Your task to perform on an android device: toggle wifi Image 0: 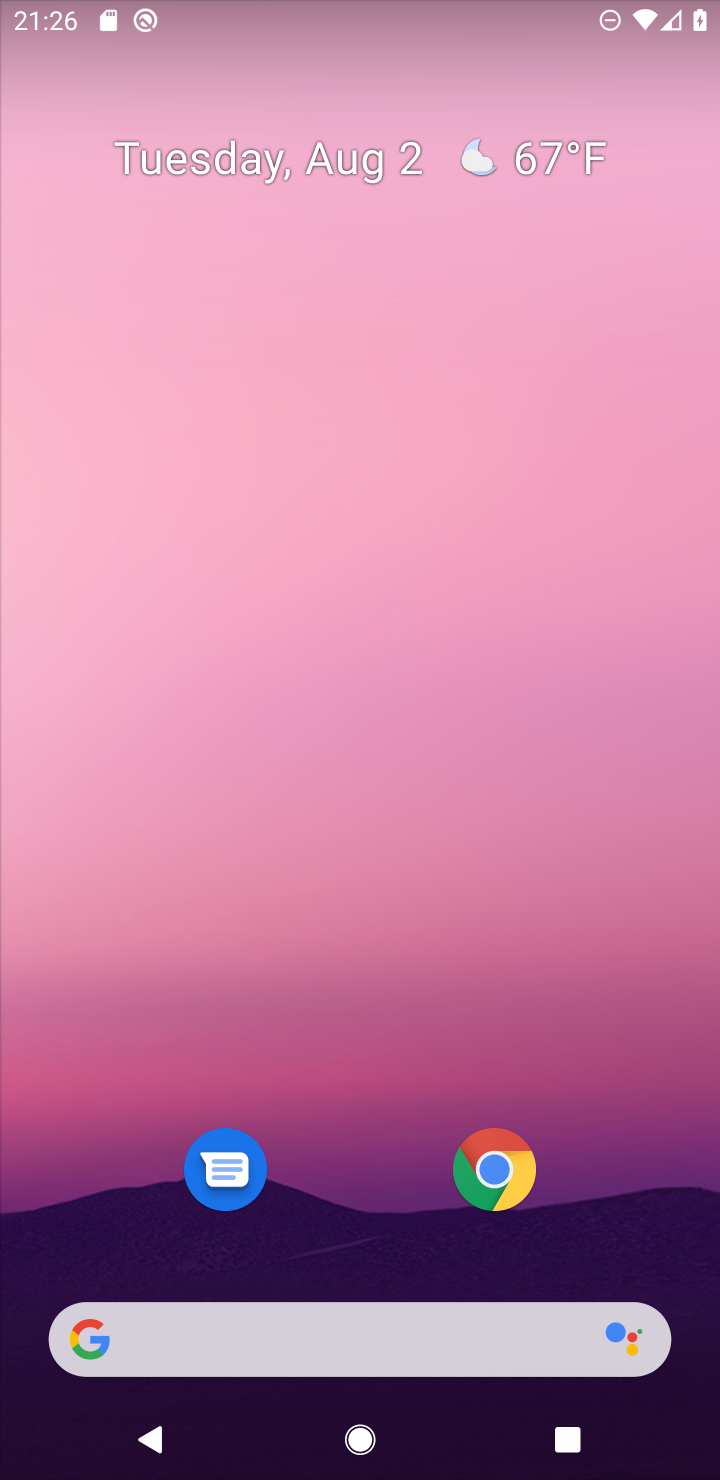
Step 0: drag from (392, 685) to (329, 22)
Your task to perform on an android device: toggle wifi Image 1: 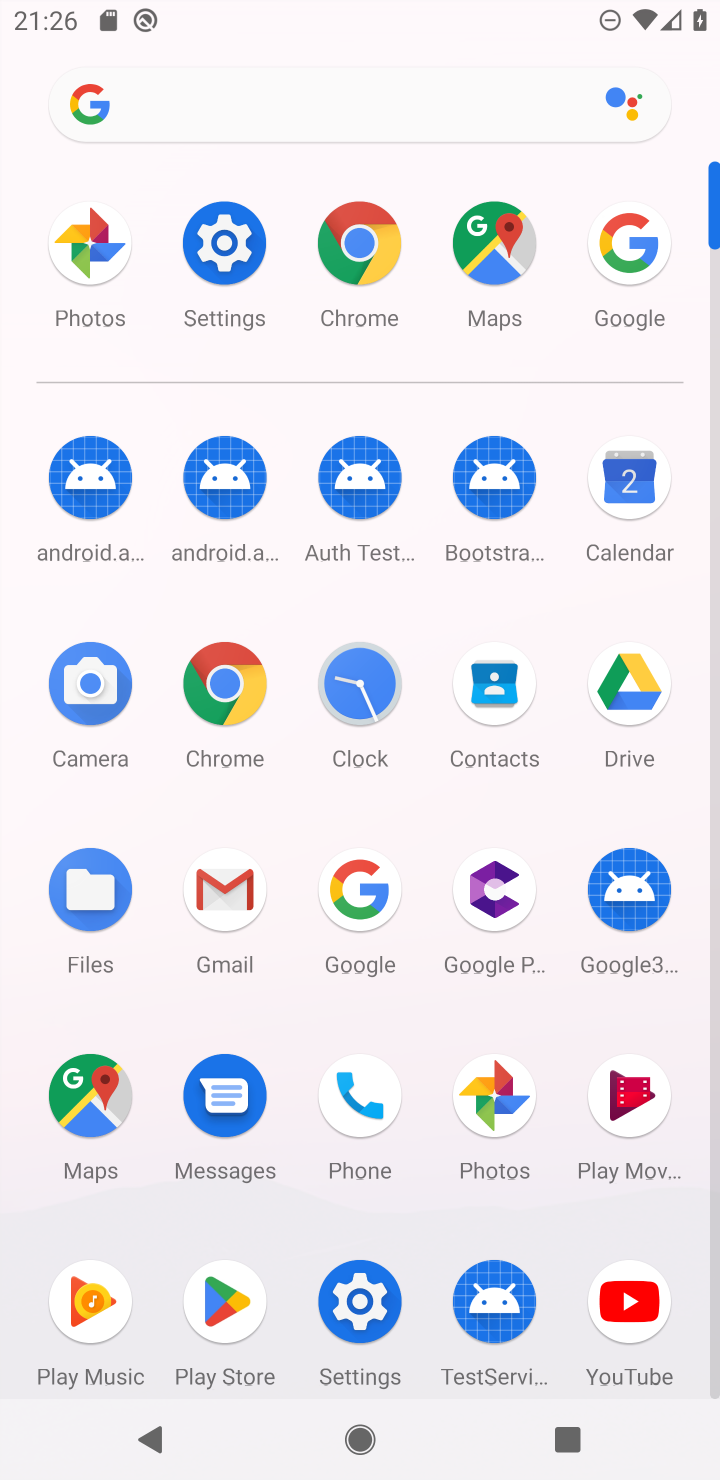
Step 1: click (233, 236)
Your task to perform on an android device: toggle wifi Image 2: 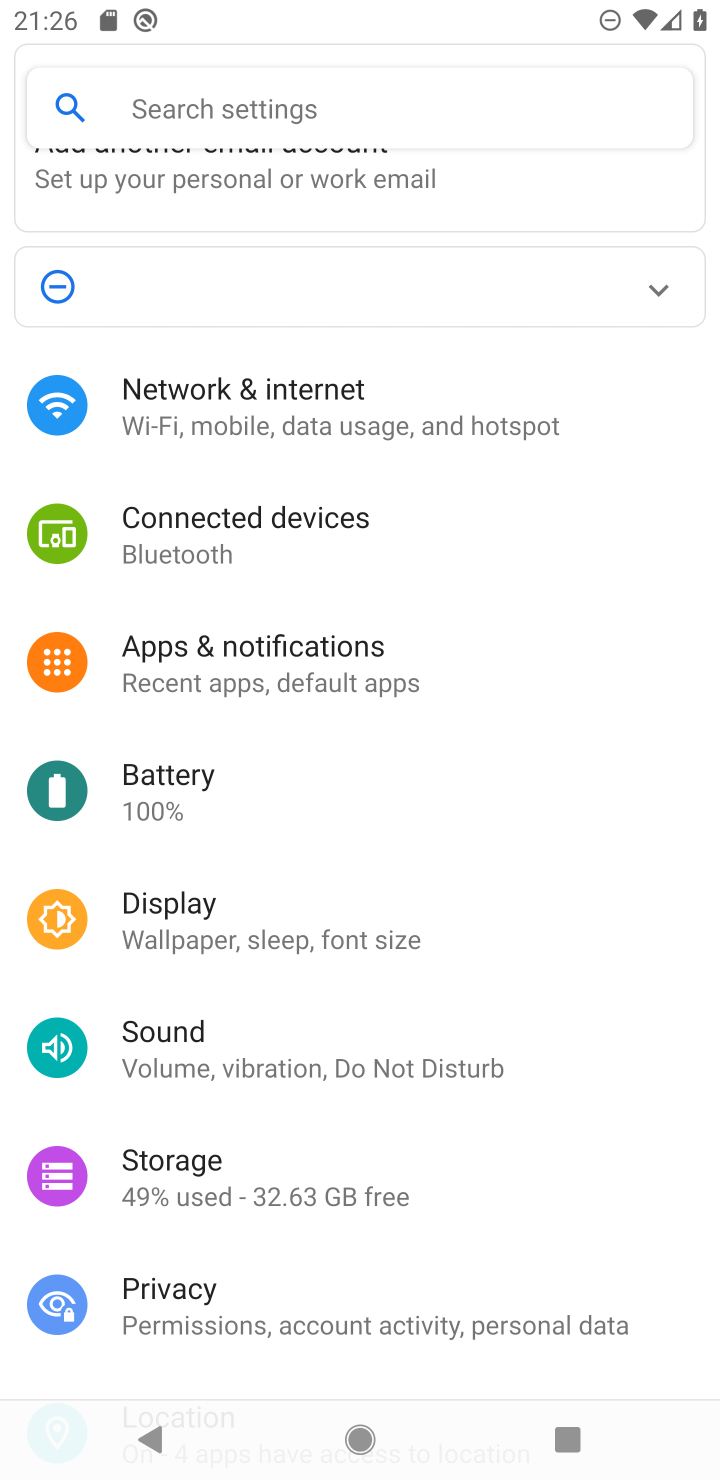
Step 2: click (228, 398)
Your task to perform on an android device: toggle wifi Image 3: 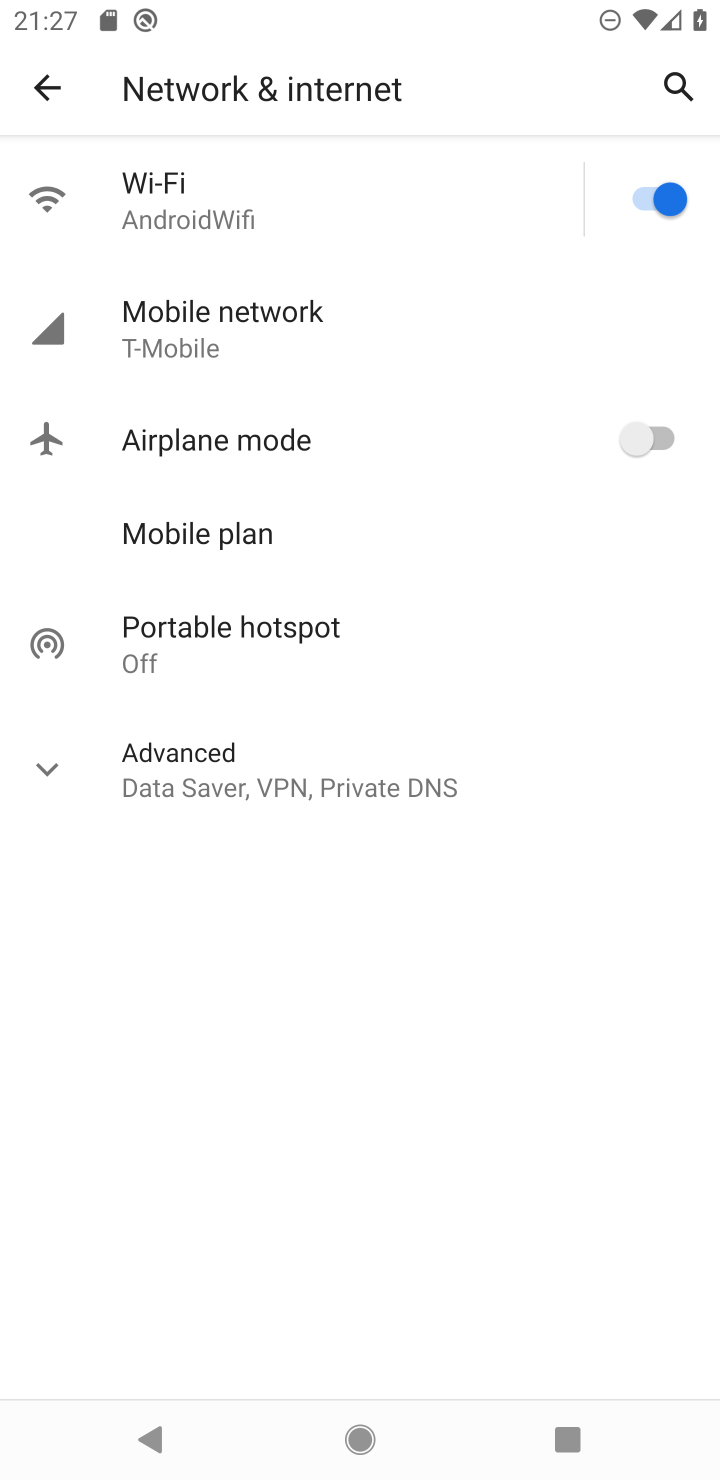
Step 3: click (168, 195)
Your task to perform on an android device: toggle wifi Image 4: 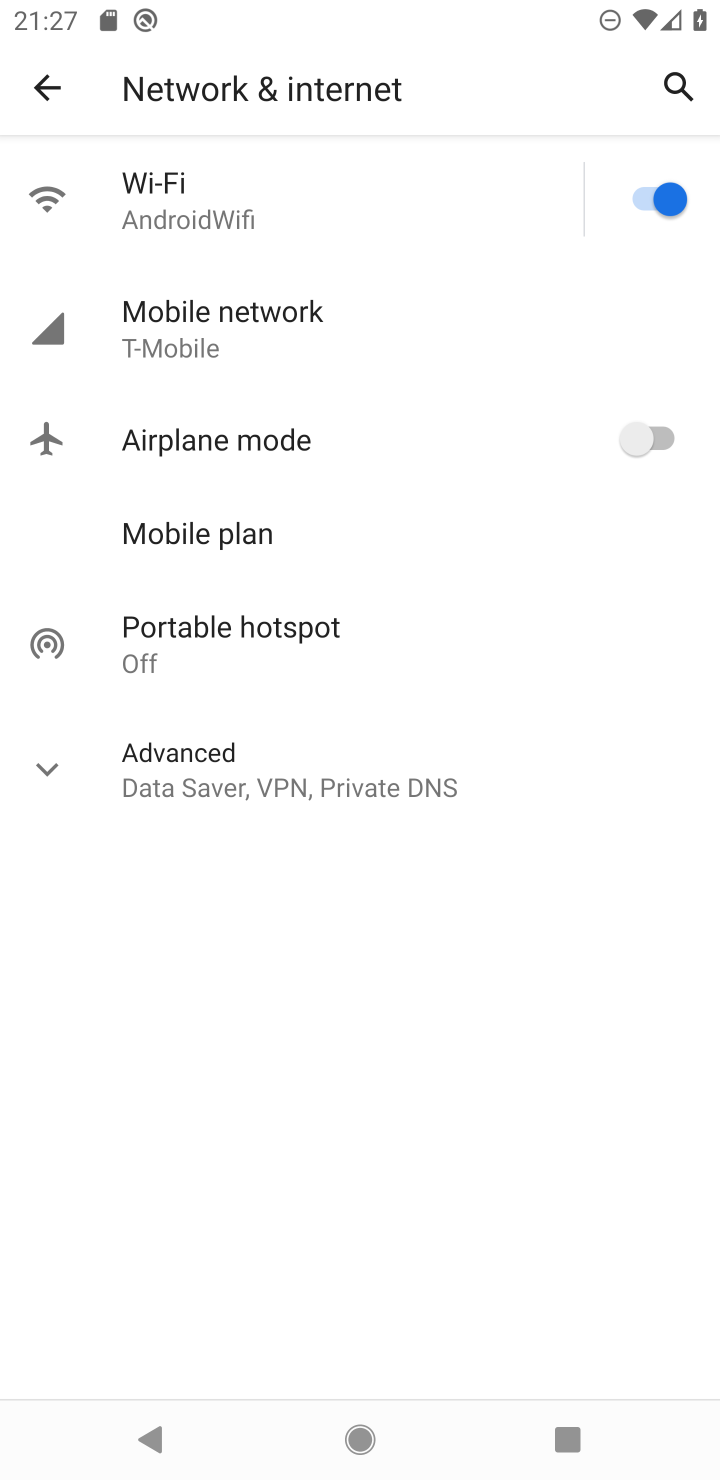
Step 4: click (662, 192)
Your task to perform on an android device: toggle wifi Image 5: 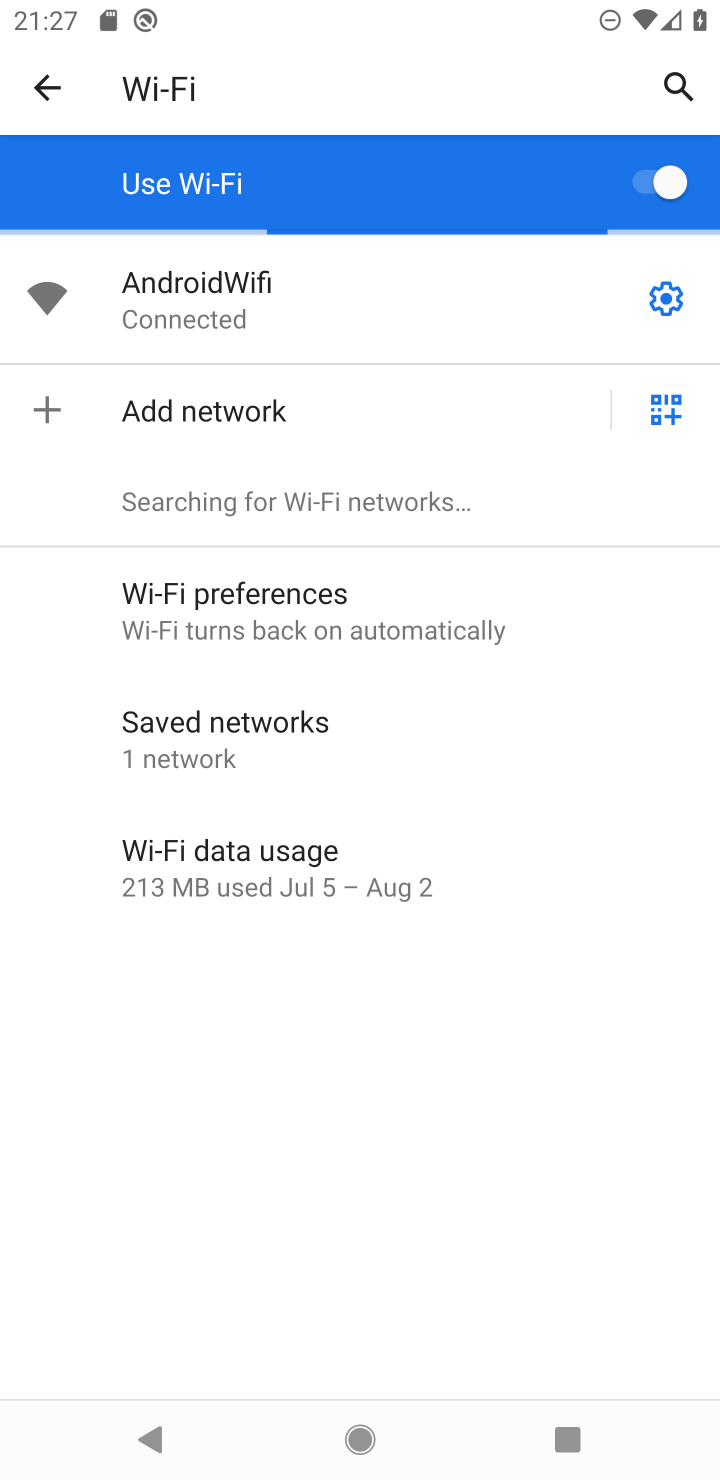
Step 5: click (655, 177)
Your task to perform on an android device: toggle wifi Image 6: 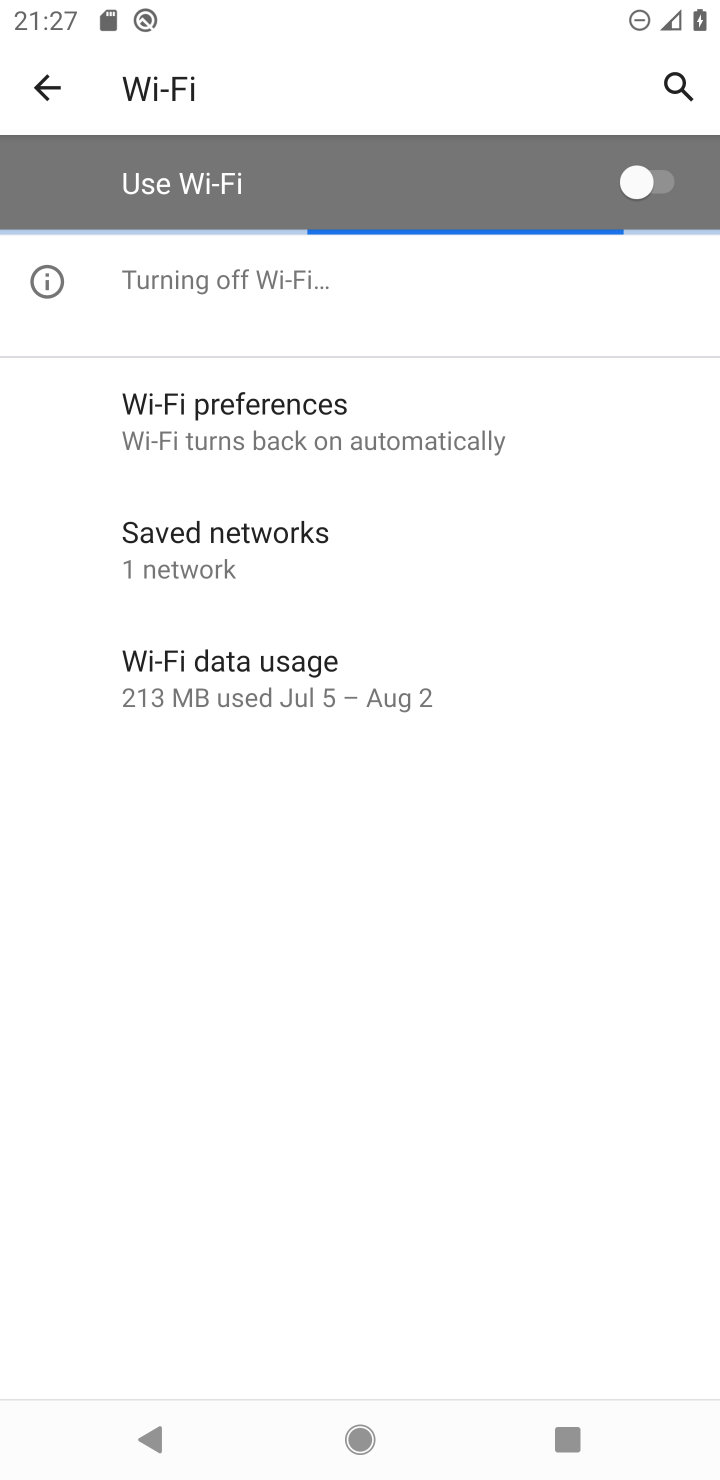
Step 6: task complete